Your task to perform on an android device: turn off smart reply in the gmail app Image 0: 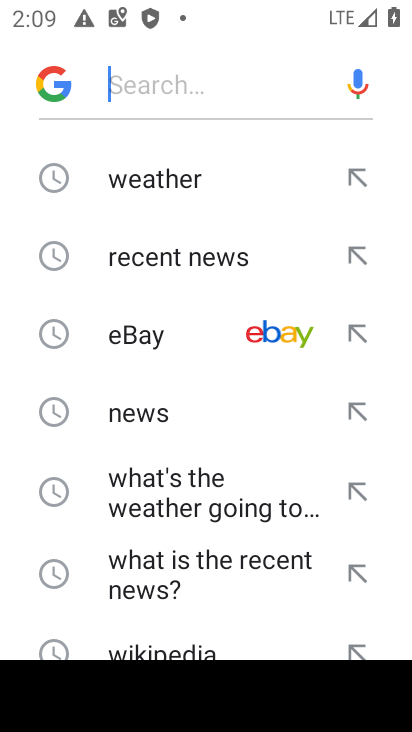
Step 0: press back button
Your task to perform on an android device: turn off smart reply in the gmail app Image 1: 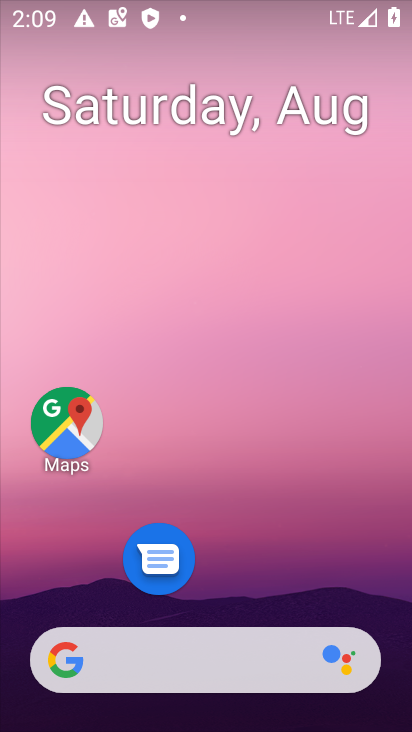
Step 1: drag from (207, 625) to (163, 174)
Your task to perform on an android device: turn off smart reply in the gmail app Image 2: 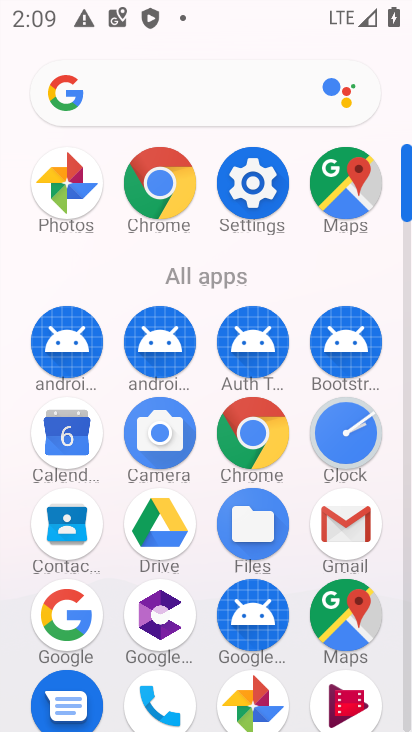
Step 2: click (248, 211)
Your task to perform on an android device: turn off smart reply in the gmail app Image 3: 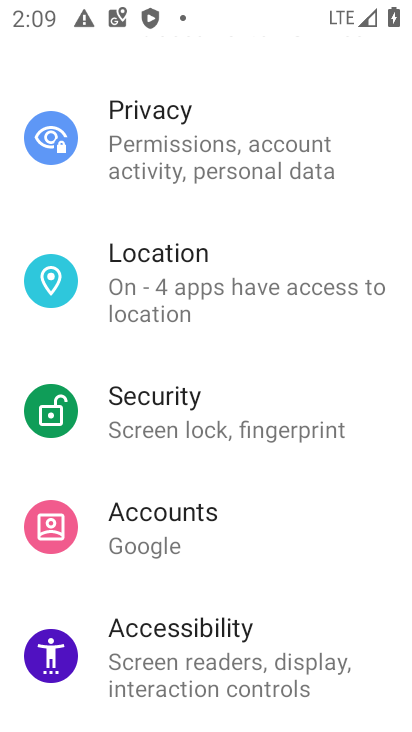
Step 3: press home button
Your task to perform on an android device: turn off smart reply in the gmail app Image 4: 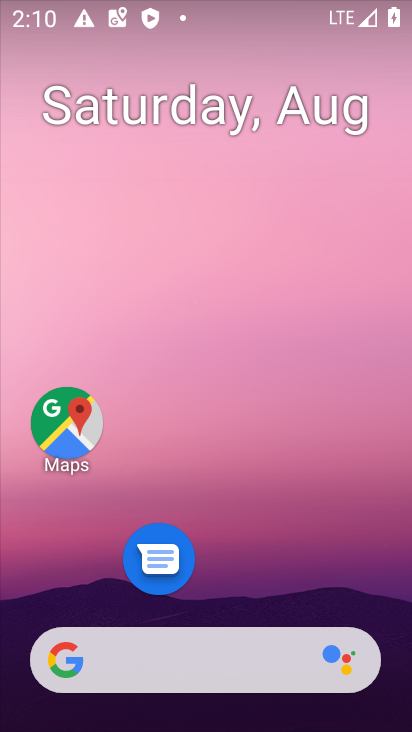
Step 4: drag from (303, 513) to (191, 0)
Your task to perform on an android device: turn off smart reply in the gmail app Image 5: 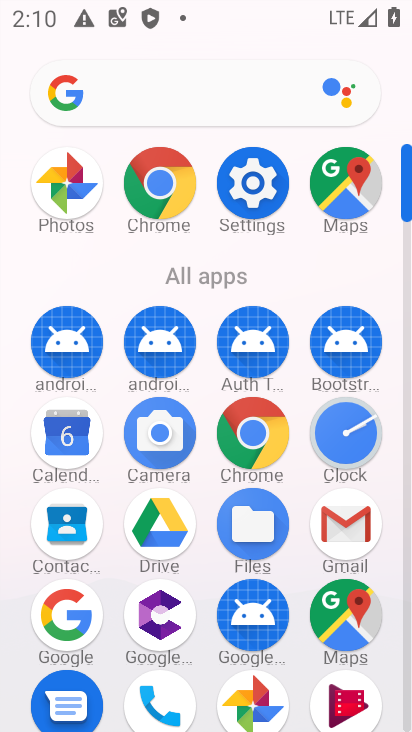
Step 5: click (320, 517)
Your task to perform on an android device: turn off smart reply in the gmail app Image 6: 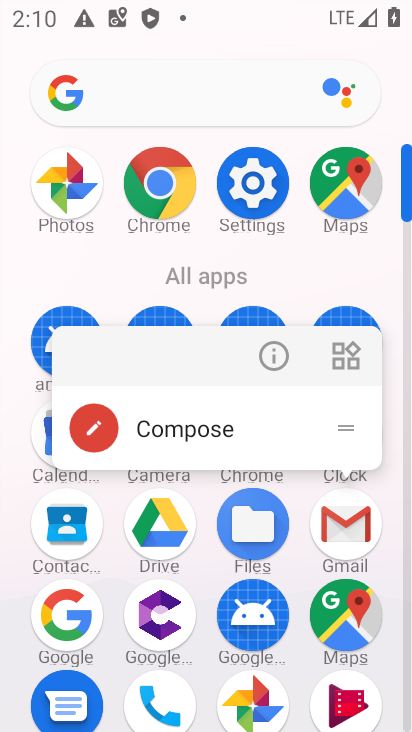
Step 6: click (330, 494)
Your task to perform on an android device: turn off smart reply in the gmail app Image 7: 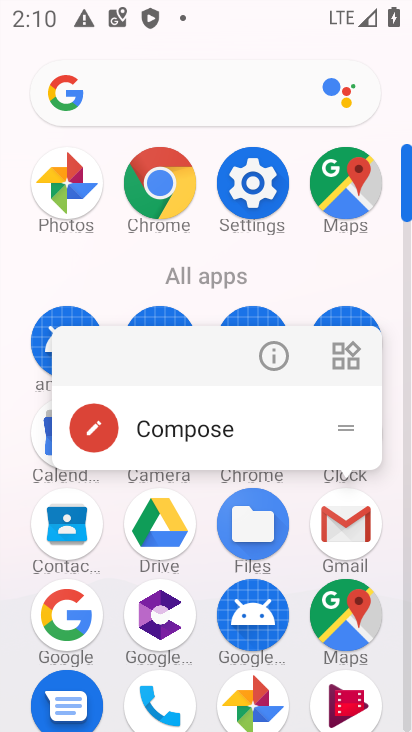
Step 7: click (330, 516)
Your task to perform on an android device: turn off smart reply in the gmail app Image 8: 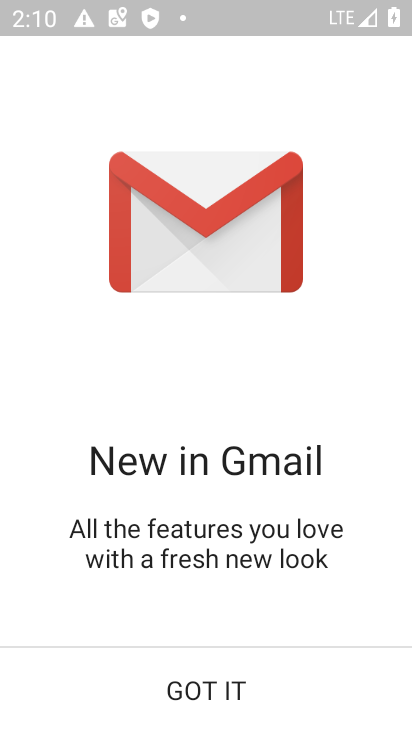
Step 8: click (165, 693)
Your task to perform on an android device: turn off smart reply in the gmail app Image 9: 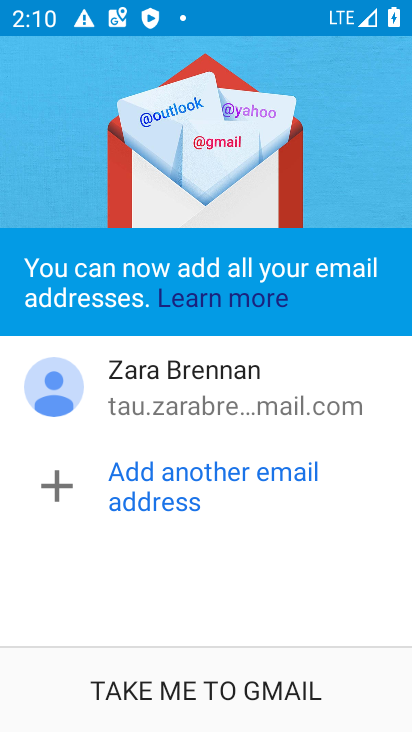
Step 9: click (161, 675)
Your task to perform on an android device: turn off smart reply in the gmail app Image 10: 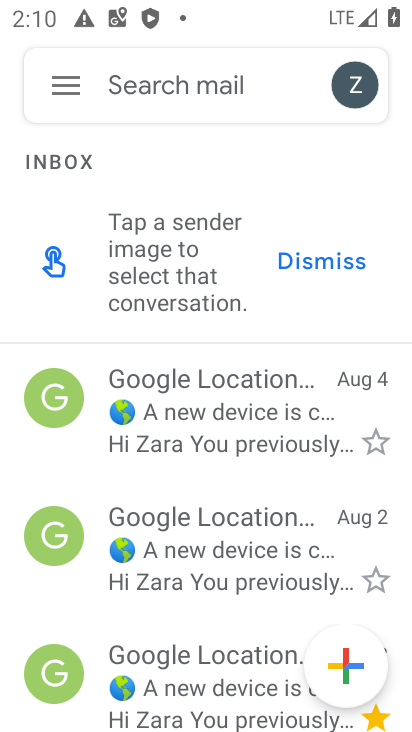
Step 10: click (67, 81)
Your task to perform on an android device: turn off smart reply in the gmail app Image 11: 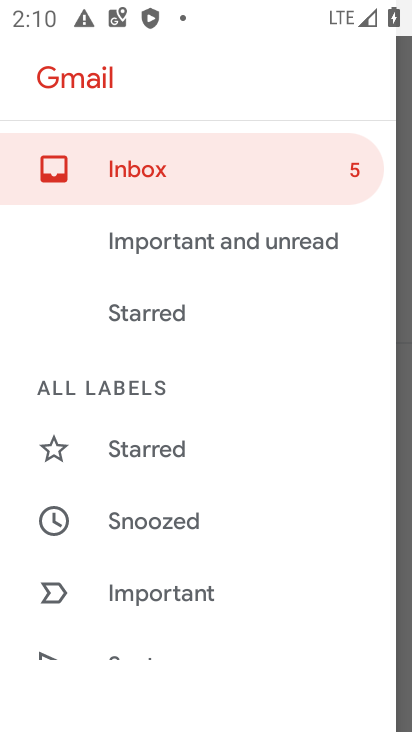
Step 11: click (157, 463)
Your task to perform on an android device: turn off smart reply in the gmail app Image 12: 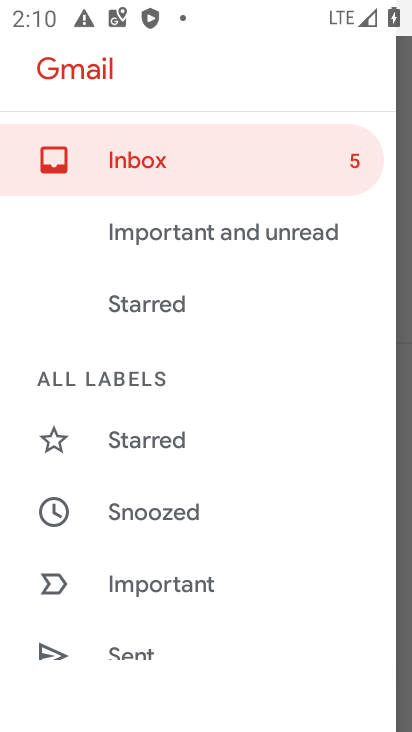
Step 12: drag from (172, 520) to (127, 359)
Your task to perform on an android device: turn off smart reply in the gmail app Image 13: 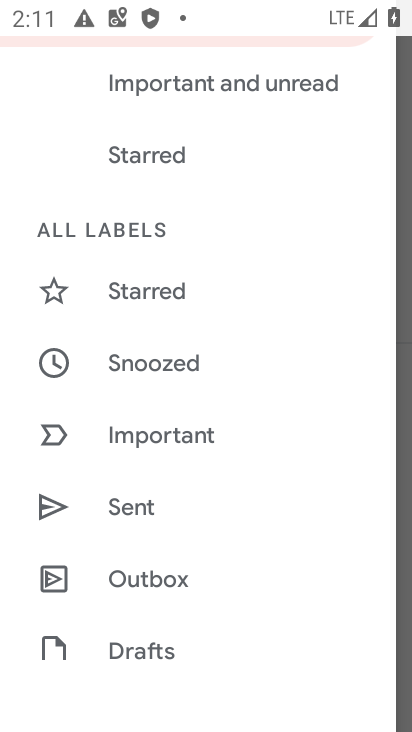
Step 13: drag from (195, 612) to (209, 344)
Your task to perform on an android device: turn off smart reply in the gmail app Image 14: 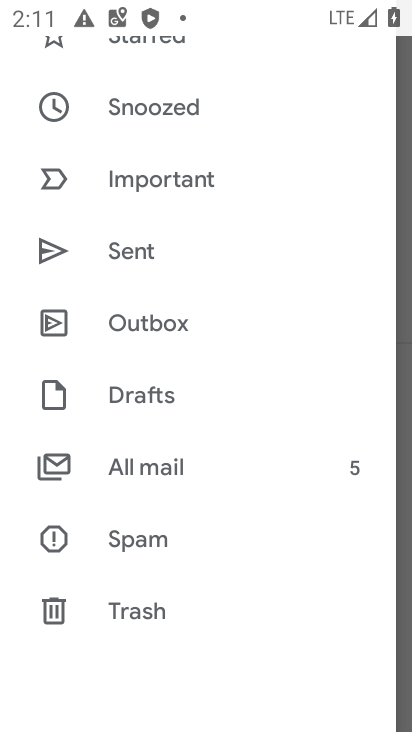
Step 14: drag from (209, 557) to (205, 197)
Your task to perform on an android device: turn off smart reply in the gmail app Image 15: 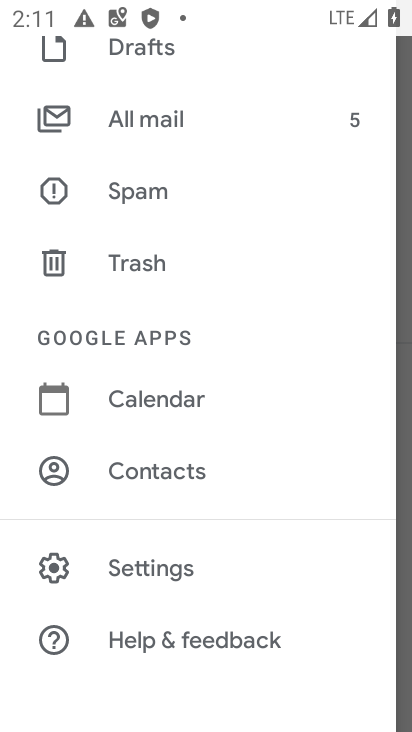
Step 15: click (134, 586)
Your task to perform on an android device: turn off smart reply in the gmail app Image 16: 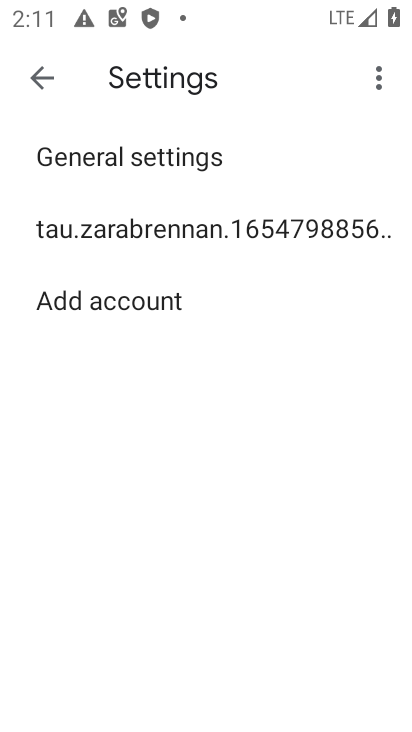
Step 16: click (153, 229)
Your task to perform on an android device: turn off smart reply in the gmail app Image 17: 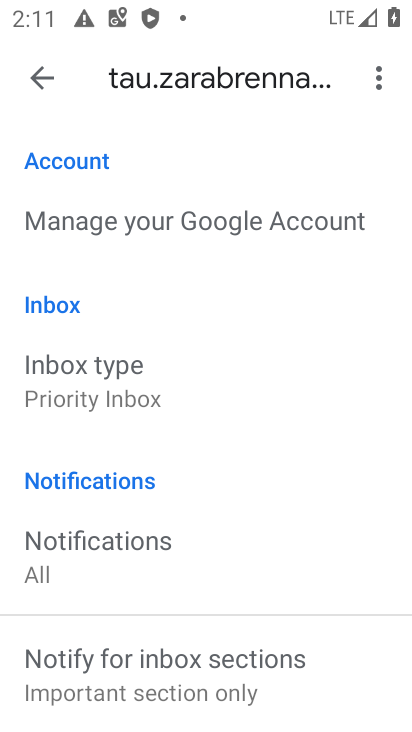
Step 17: drag from (219, 550) to (200, 475)
Your task to perform on an android device: turn off smart reply in the gmail app Image 18: 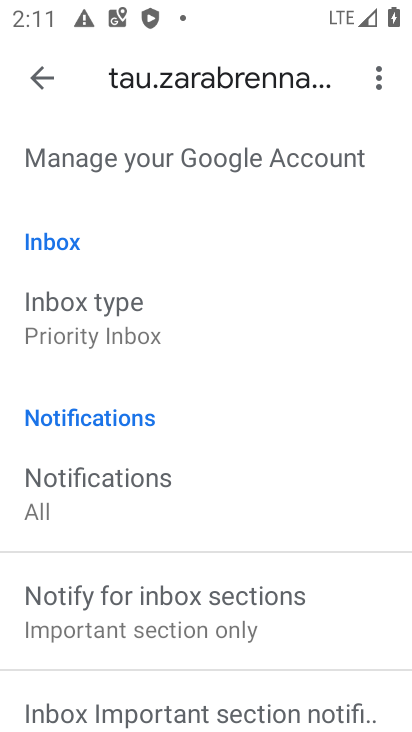
Step 18: drag from (236, 675) to (212, 569)
Your task to perform on an android device: turn off smart reply in the gmail app Image 19: 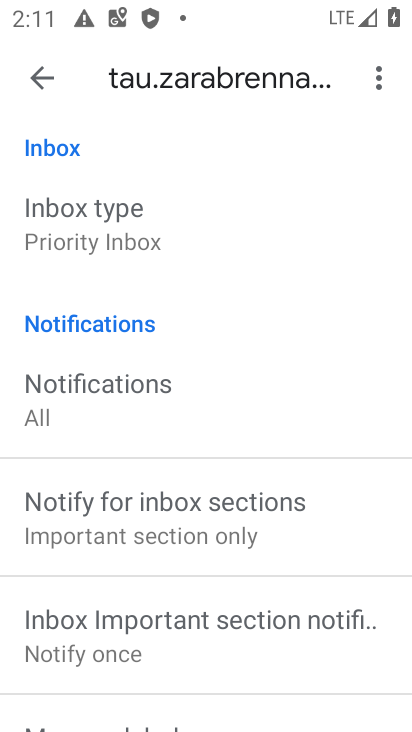
Step 19: drag from (207, 664) to (164, 390)
Your task to perform on an android device: turn off smart reply in the gmail app Image 20: 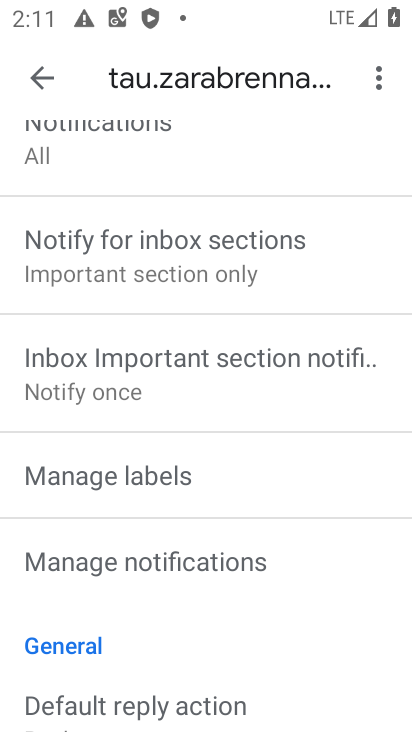
Step 20: drag from (164, 608) to (161, 436)
Your task to perform on an android device: turn off smart reply in the gmail app Image 21: 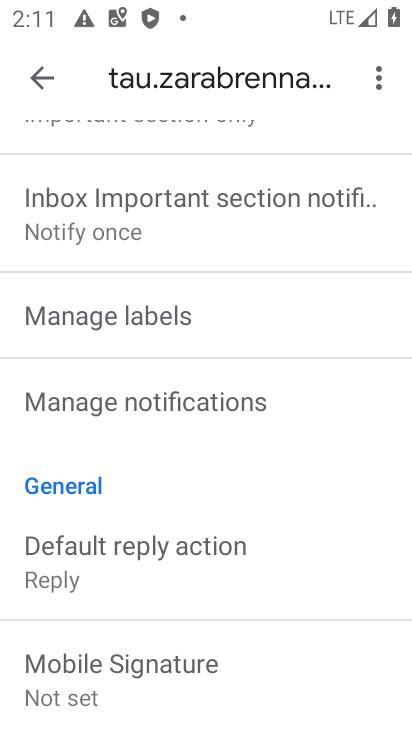
Step 21: drag from (168, 635) to (69, 285)
Your task to perform on an android device: turn off smart reply in the gmail app Image 22: 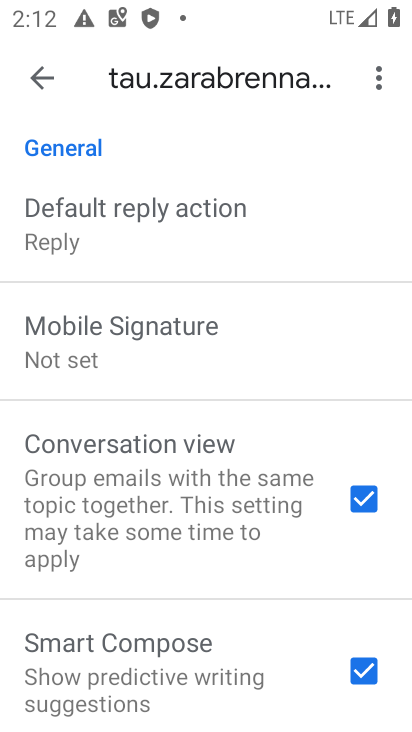
Step 22: drag from (205, 567) to (203, 445)
Your task to perform on an android device: turn off smart reply in the gmail app Image 23: 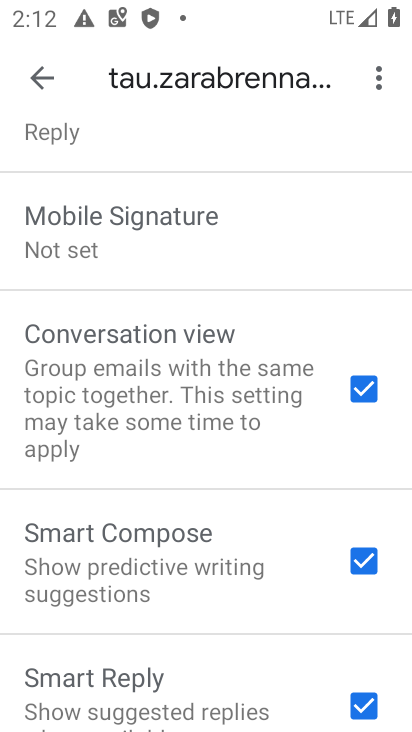
Step 23: click (348, 712)
Your task to perform on an android device: turn off smart reply in the gmail app Image 24: 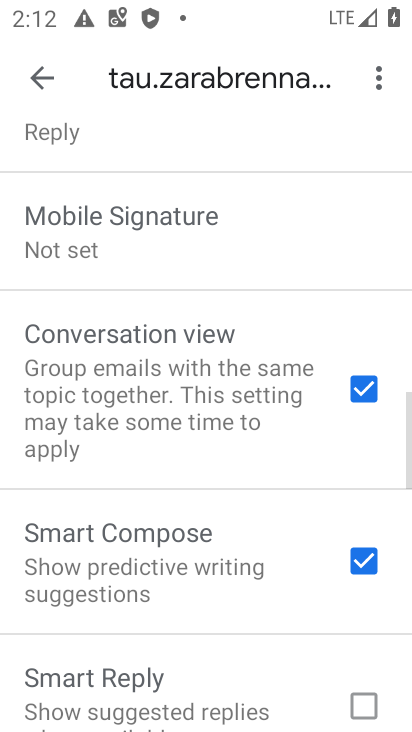
Step 24: task complete